Your task to perform on an android device: change alarm snooze length Image 0: 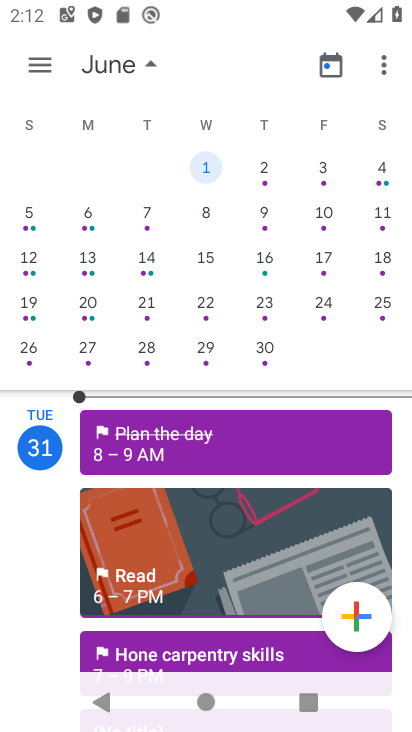
Step 0: press home button
Your task to perform on an android device: change alarm snooze length Image 1: 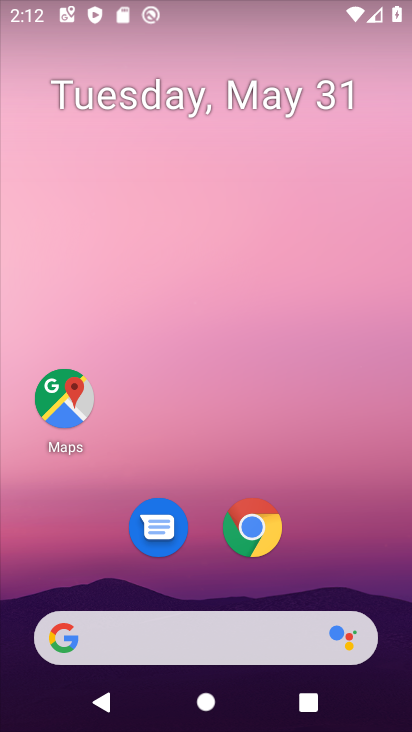
Step 1: drag from (370, 570) to (351, 80)
Your task to perform on an android device: change alarm snooze length Image 2: 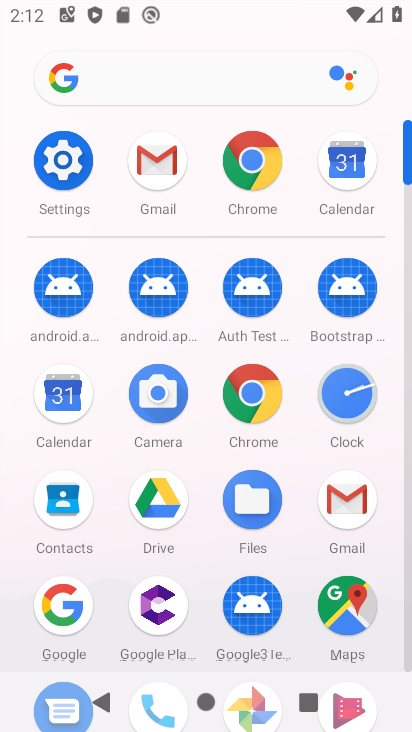
Step 2: click (342, 397)
Your task to perform on an android device: change alarm snooze length Image 3: 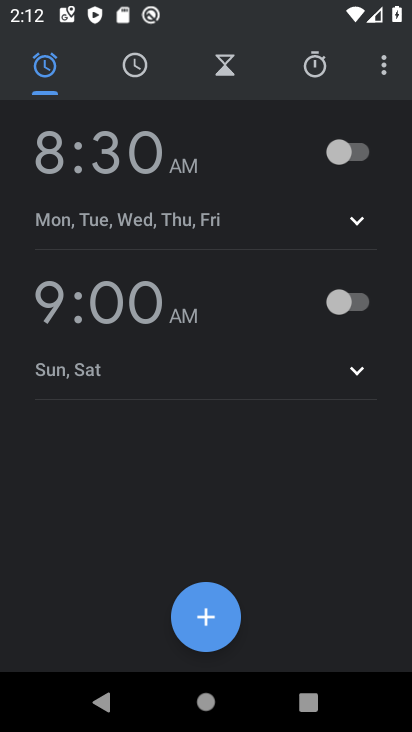
Step 3: click (388, 59)
Your task to perform on an android device: change alarm snooze length Image 4: 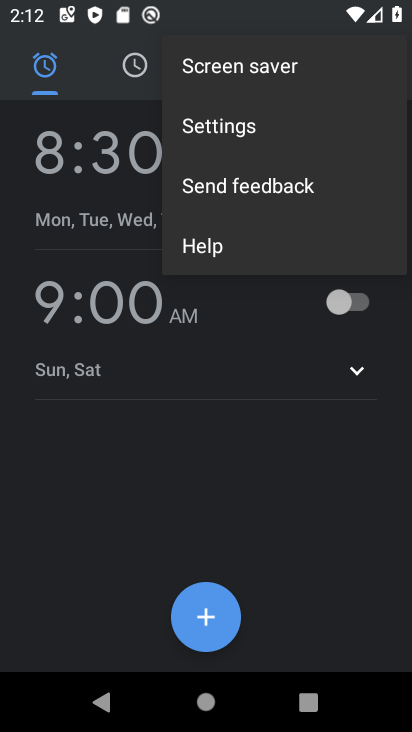
Step 4: click (245, 128)
Your task to perform on an android device: change alarm snooze length Image 5: 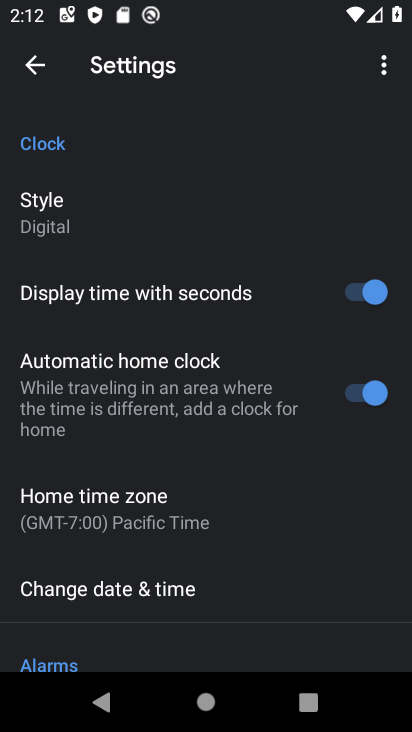
Step 5: drag from (253, 264) to (244, 200)
Your task to perform on an android device: change alarm snooze length Image 6: 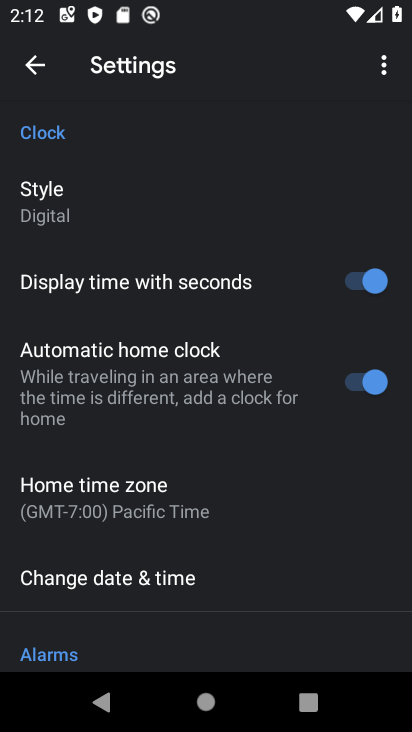
Step 6: drag from (244, 549) to (293, 177)
Your task to perform on an android device: change alarm snooze length Image 7: 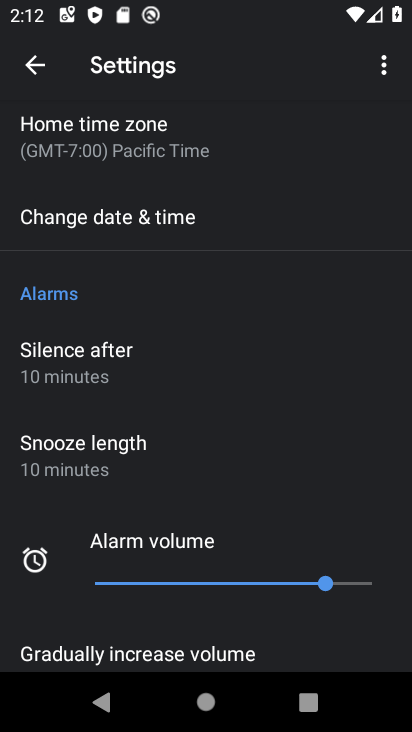
Step 7: click (91, 458)
Your task to perform on an android device: change alarm snooze length Image 8: 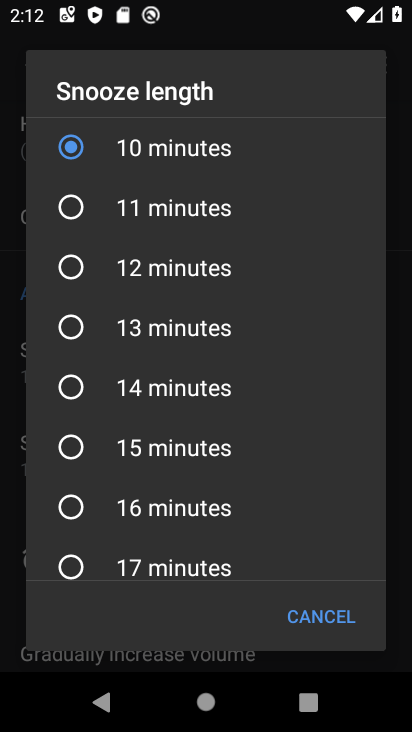
Step 8: click (148, 390)
Your task to perform on an android device: change alarm snooze length Image 9: 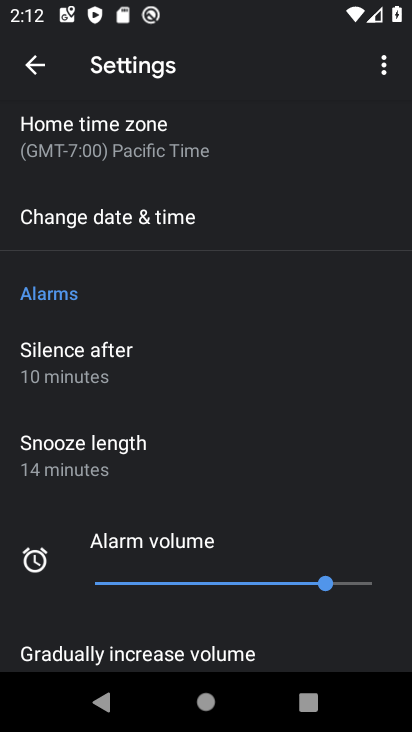
Step 9: task complete